Your task to perform on an android device: Open Maps and search for coffee Image 0: 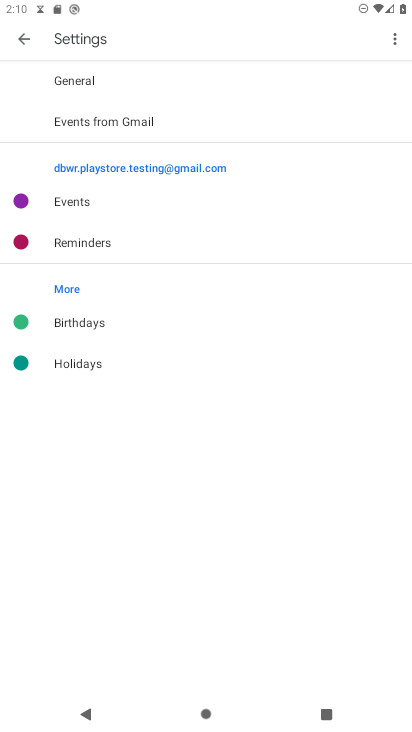
Step 0: press home button
Your task to perform on an android device: Open Maps and search for coffee Image 1: 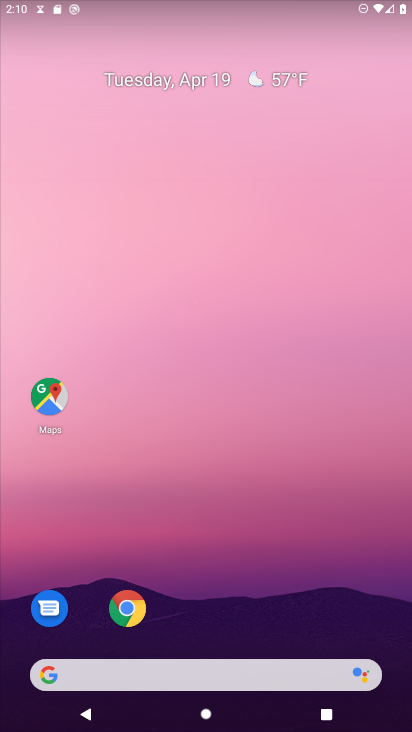
Step 1: click (47, 400)
Your task to perform on an android device: Open Maps and search for coffee Image 2: 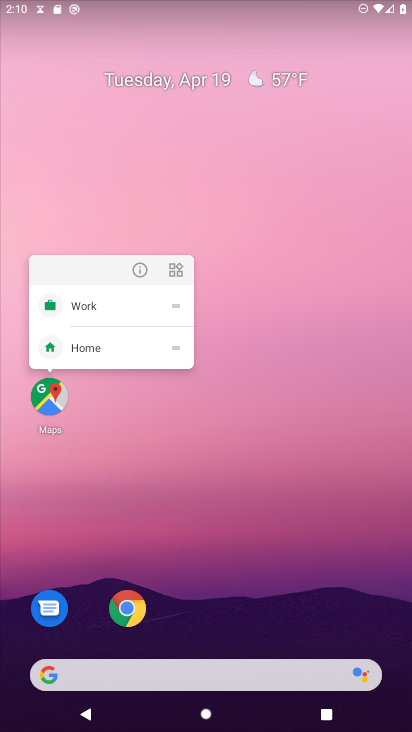
Step 2: click (47, 400)
Your task to perform on an android device: Open Maps and search for coffee Image 3: 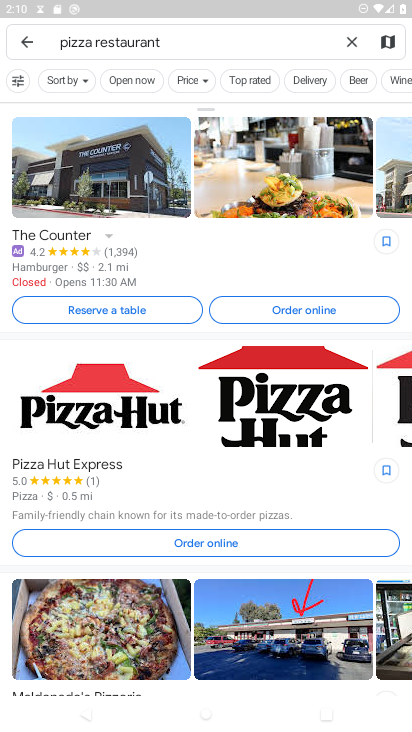
Step 3: click (350, 39)
Your task to perform on an android device: Open Maps and search for coffee Image 4: 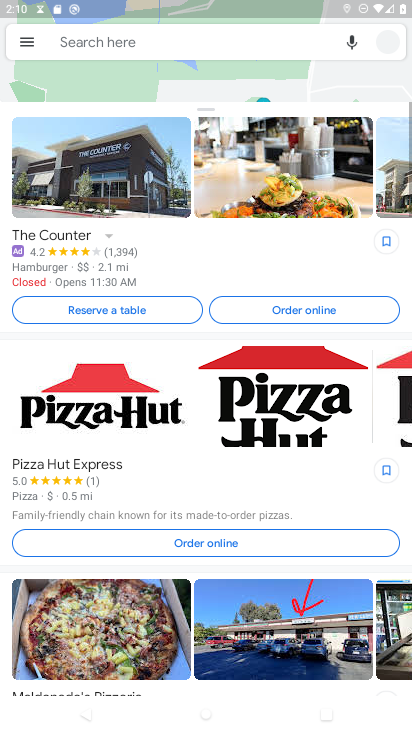
Step 4: click (152, 38)
Your task to perform on an android device: Open Maps and search for coffee Image 5: 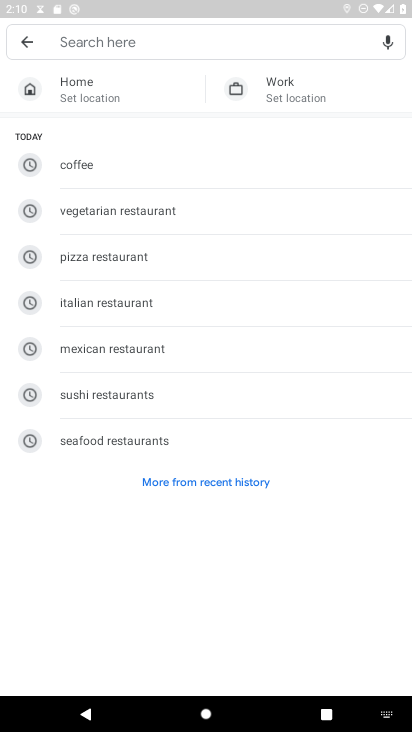
Step 5: click (71, 162)
Your task to perform on an android device: Open Maps and search for coffee Image 6: 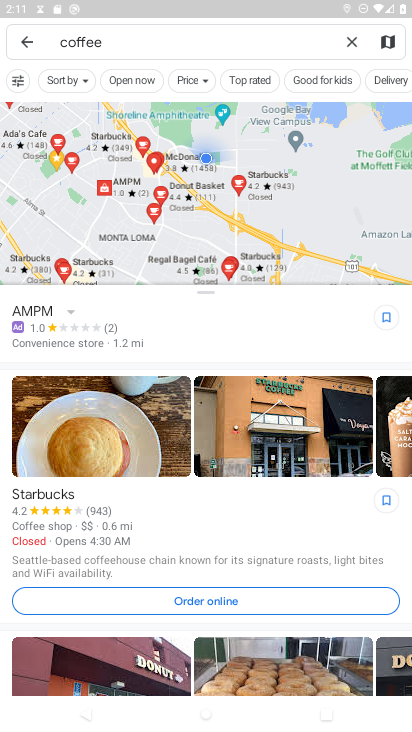
Step 6: task complete